Your task to perform on an android device: open a new tab in the chrome app Image 0: 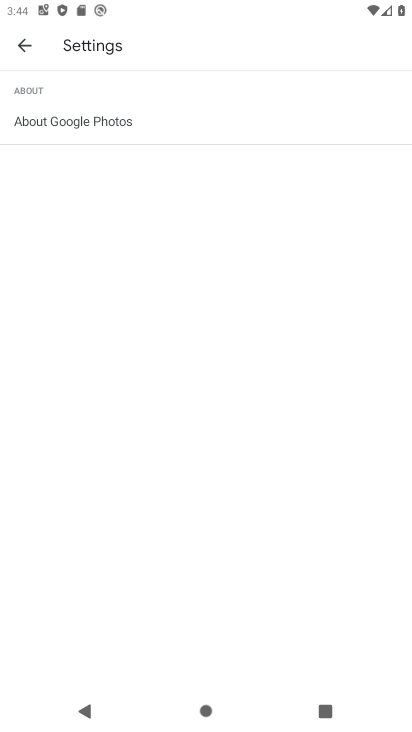
Step 0: press home button
Your task to perform on an android device: open a new tab in the chrome app Image 1: 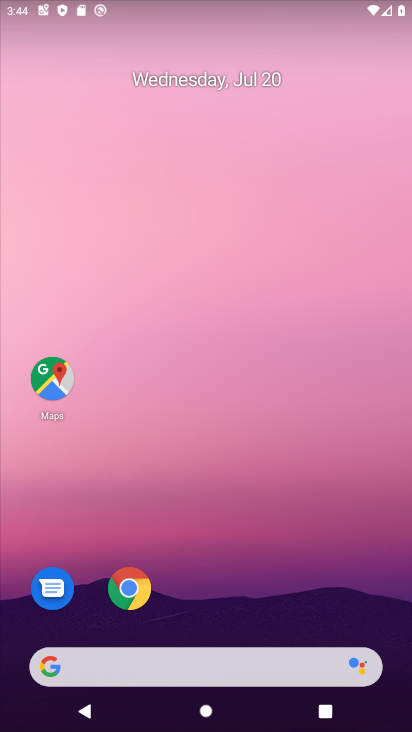
Step 1: drag from (346, 617) to (275, 69)
Your task to perform on an android device: open a new tab in the chrome app Image 2: 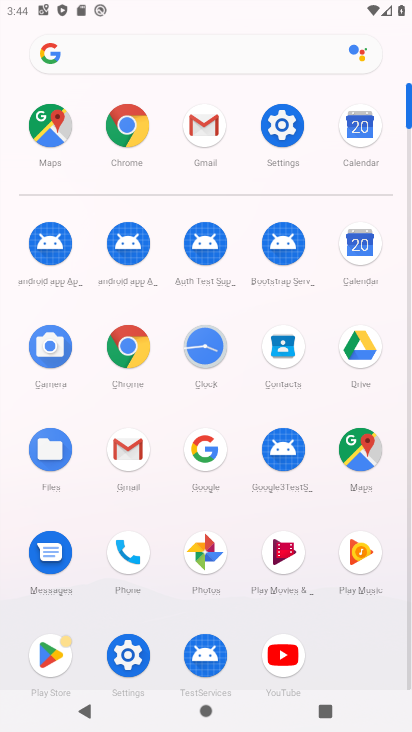
Step 2: click (130, 119)
Your task to perform on an android device: open a new tab in the chrome app Image 3: 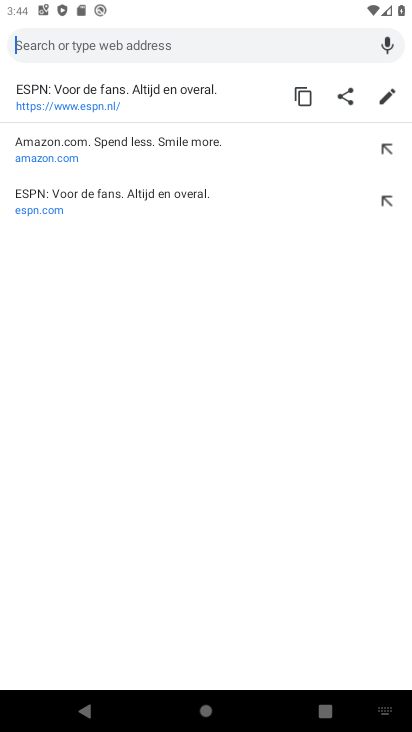
Step 3: task complete